Your task to perform on an android device: install app "eBay: The shopping marketplace" Image 0: 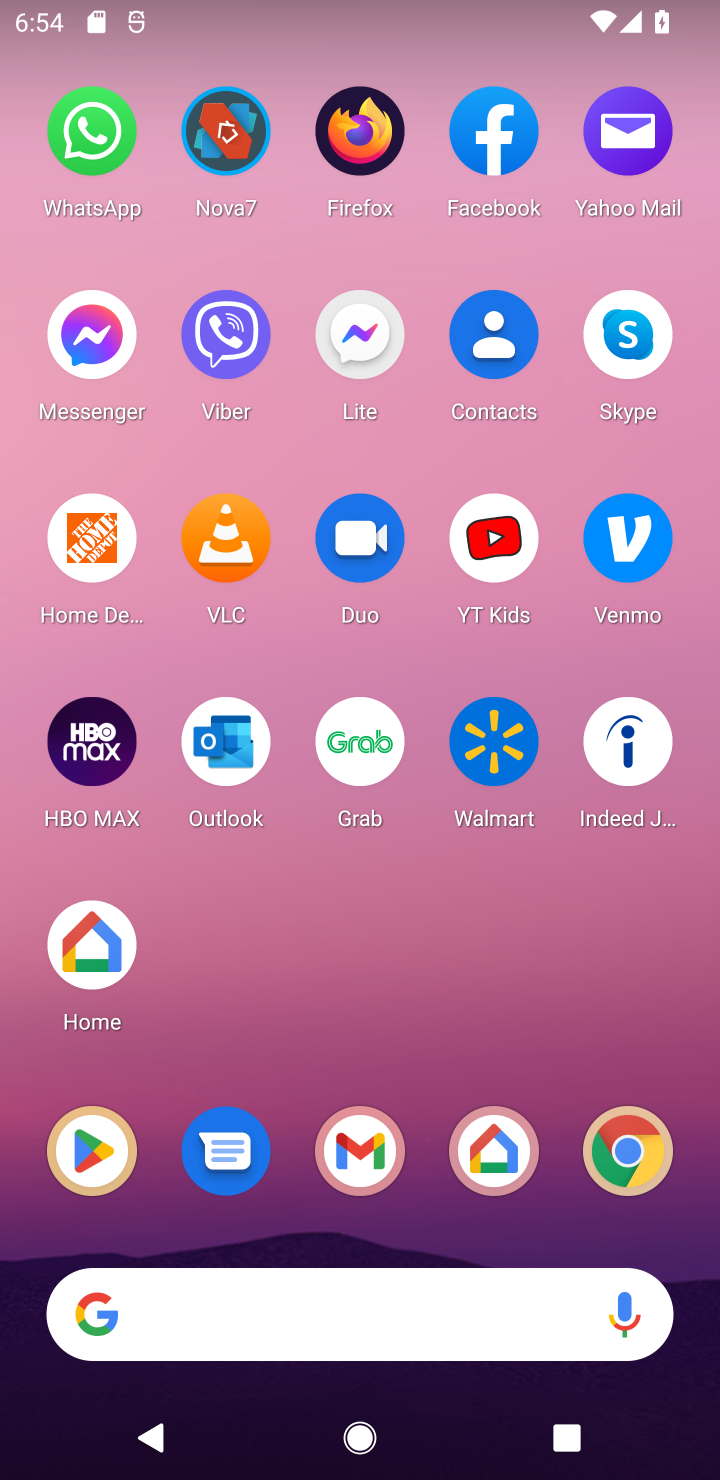
Step 0: click (88, 1149)
Your task to perform on an android device: install app "eBay: The shopping marketplace" Image 1: 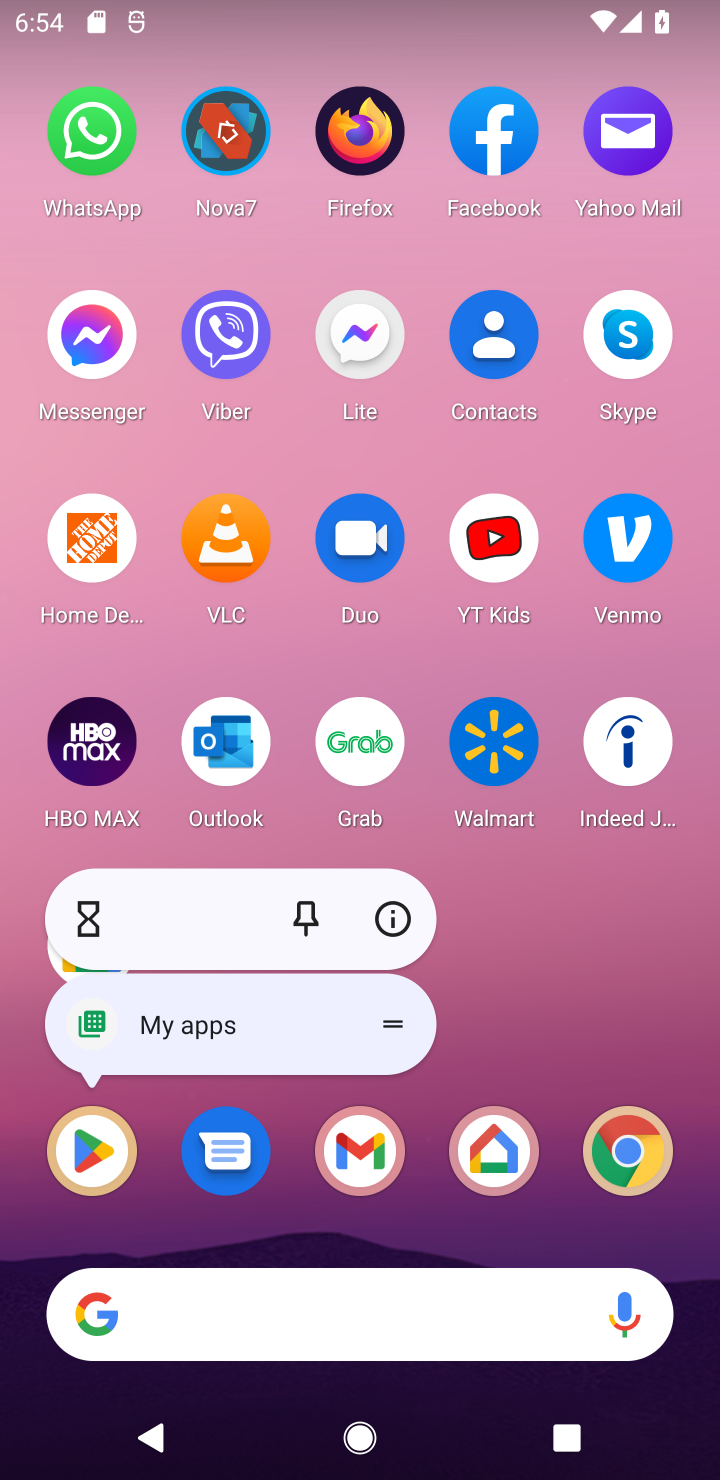
Step 1: click (93, 1160)
Your task to perform on an android device: install app "eBay: The shopping marketplace" Image 2: 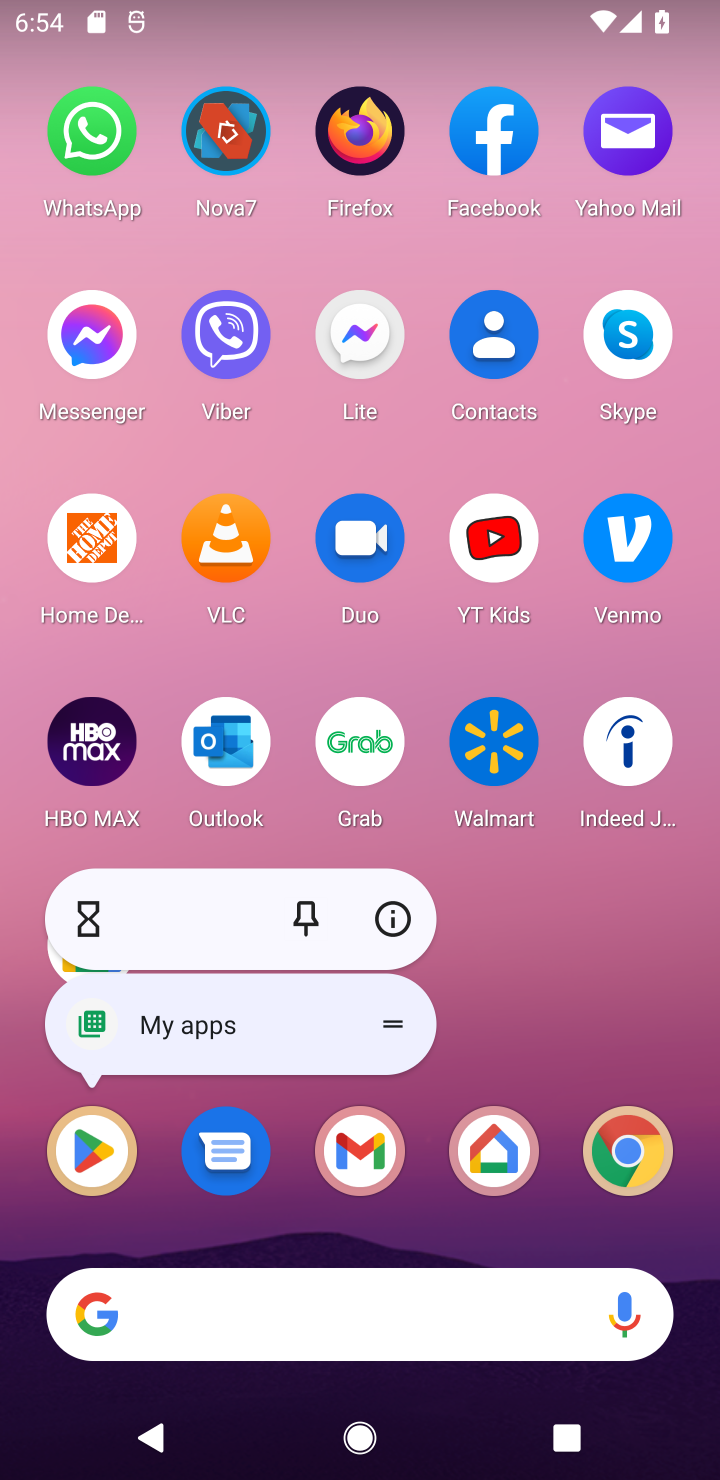
Step 2: click (93, 1160)
Your task to perform on an android device: install app "eBay: The shopping marketplace" Image 3: 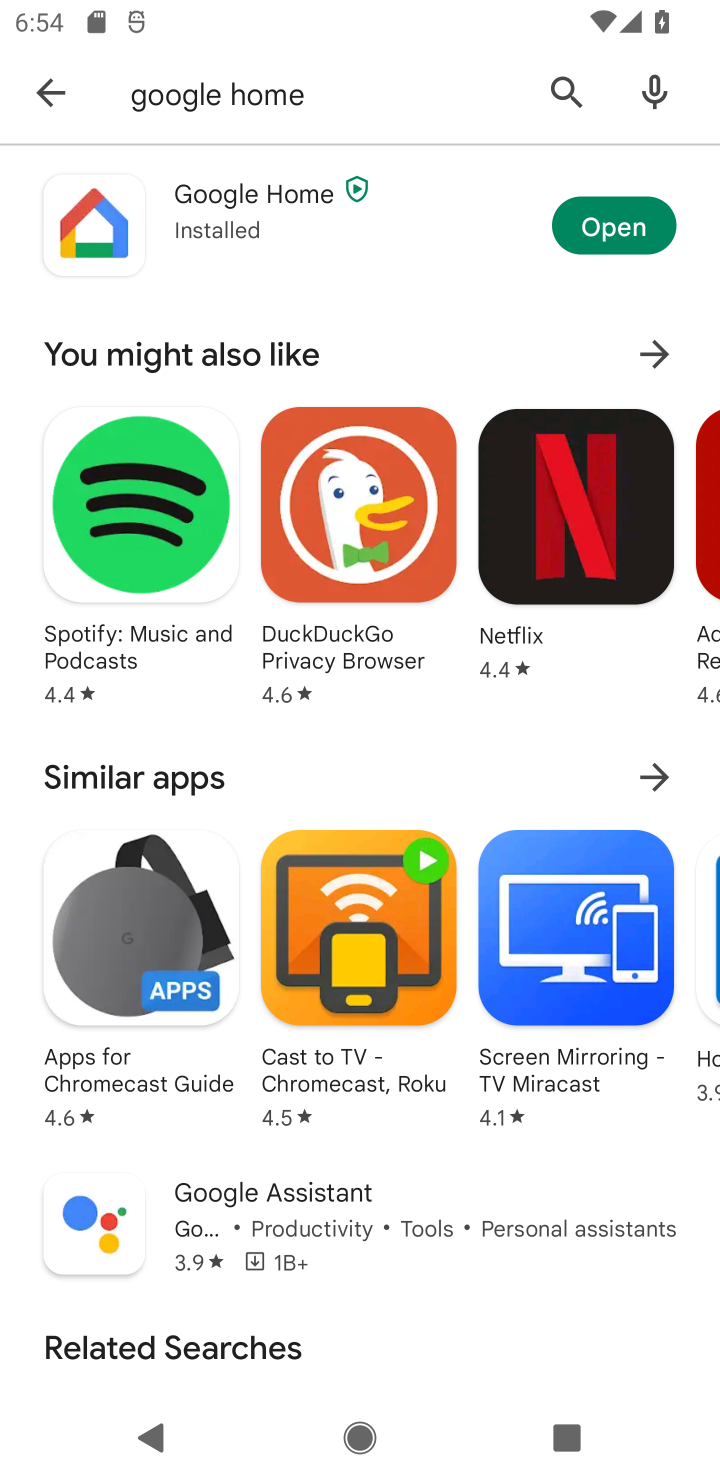
Step 3: click (566, 80)
Your task to perform on an android device: install app "eBay: The shopping marketplace" Image 4: 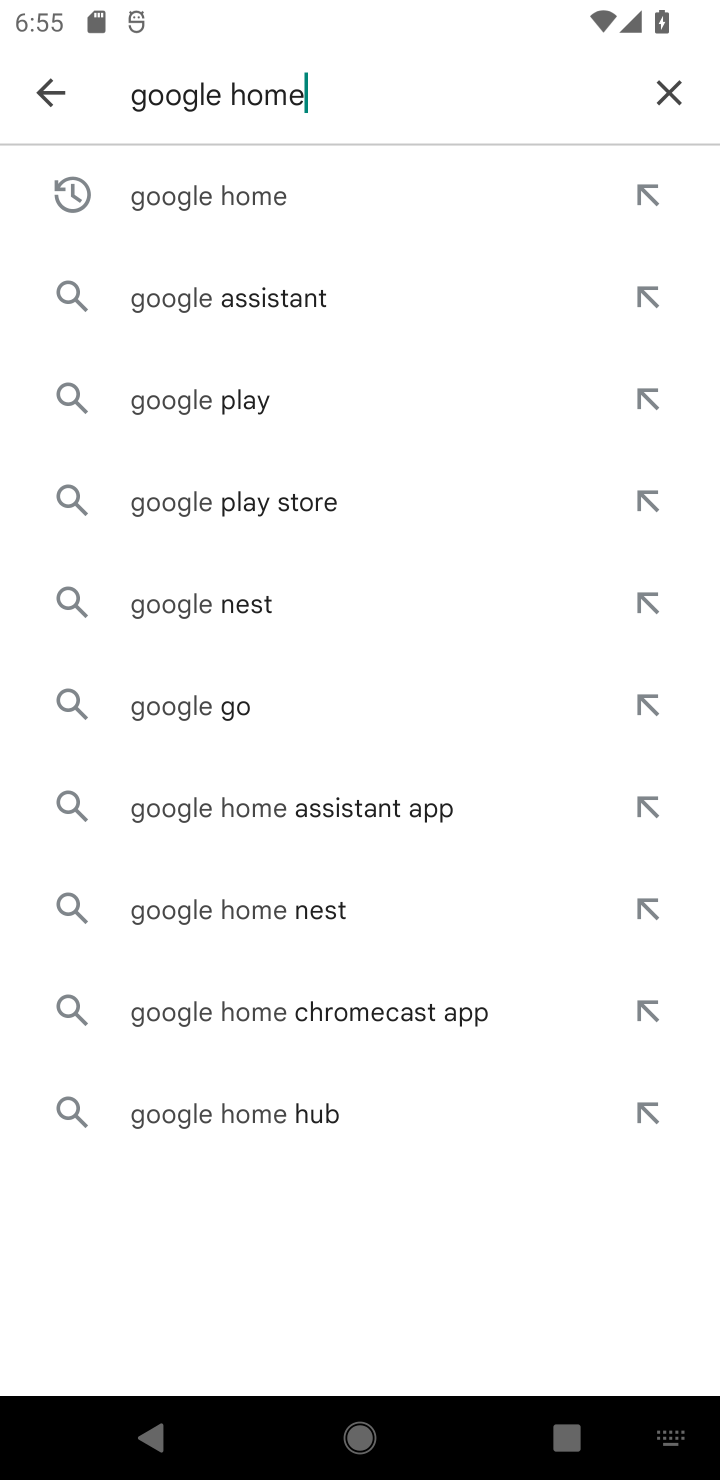
Step 4: click (674, 93)
Your task to perform on an android device: install app "eBay: The shopping marketplace" Image 5: 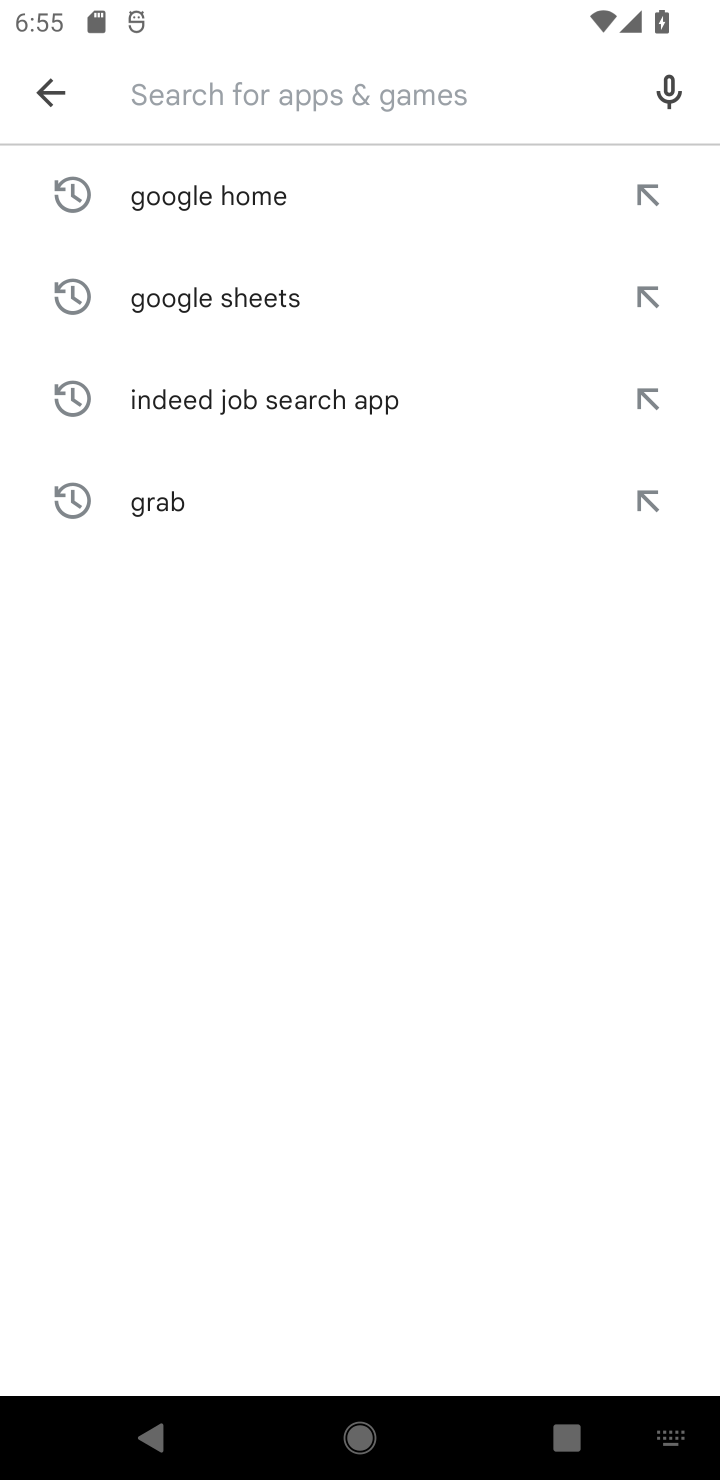
Step 5: type "eBay: The shopping marketplace"
Your task to perform on an android device: install app "eBay: The shopping marketplace" Image 6: 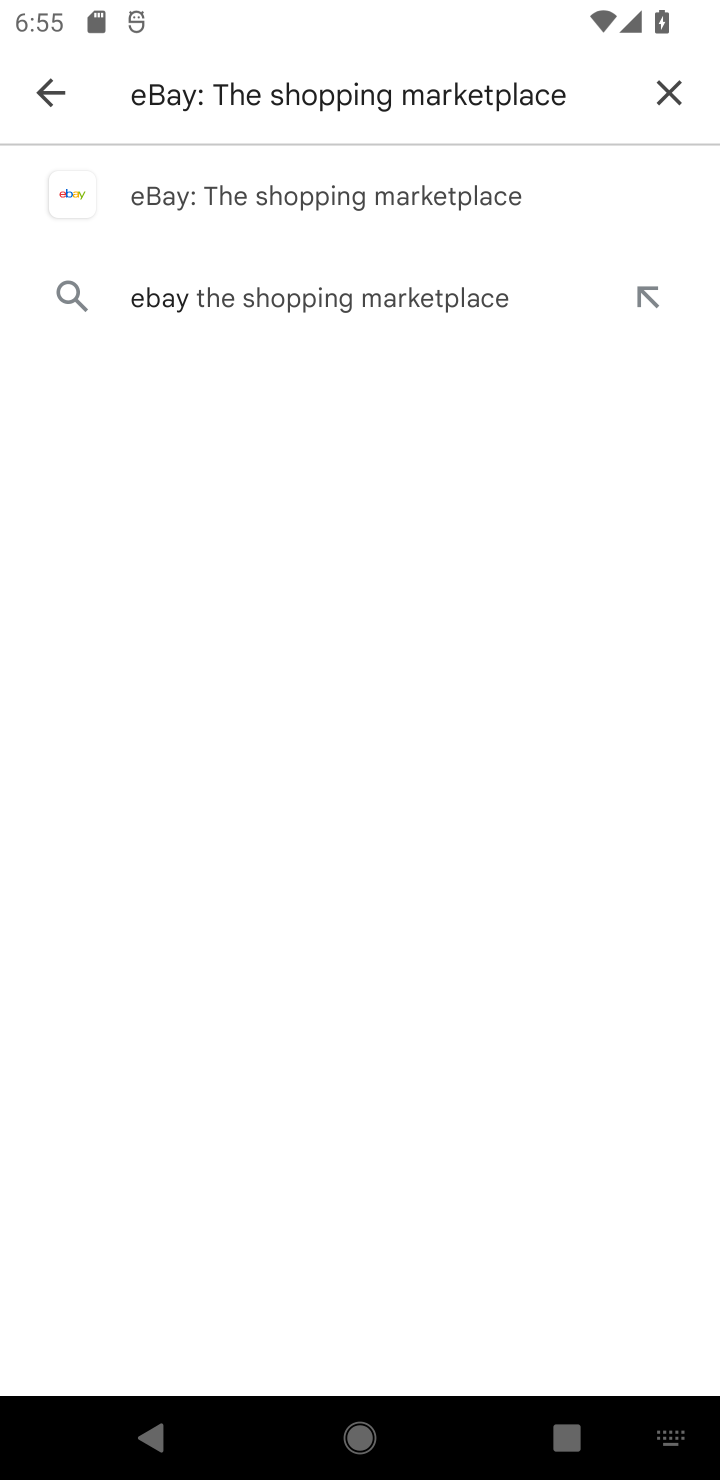
Step 6: click (256, 212)
Your task to perform on an android device: install app "eBay: The shopping marketplace" Image 7: 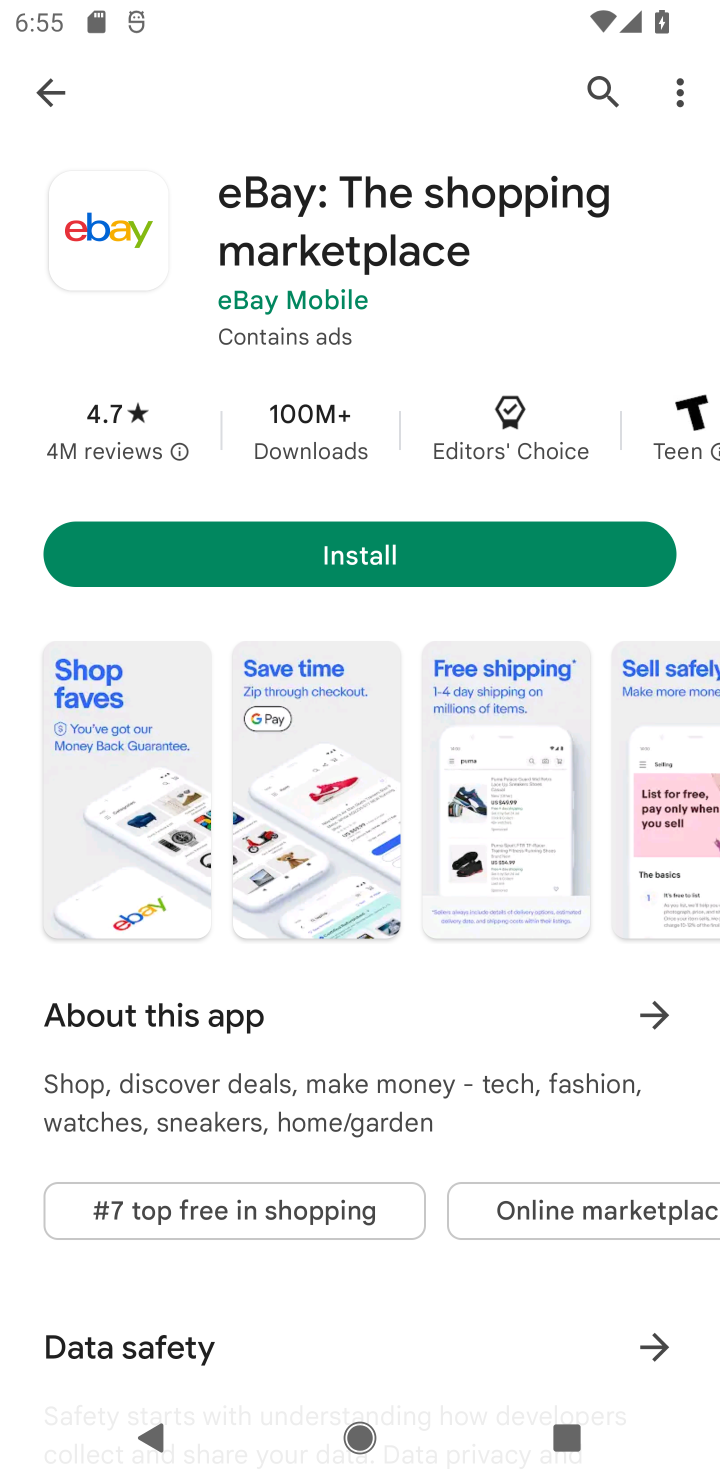
Step 7: click (290, 573)
Your task to perform on an android device: install app "eBay: The shopping marketplace" Image 8: 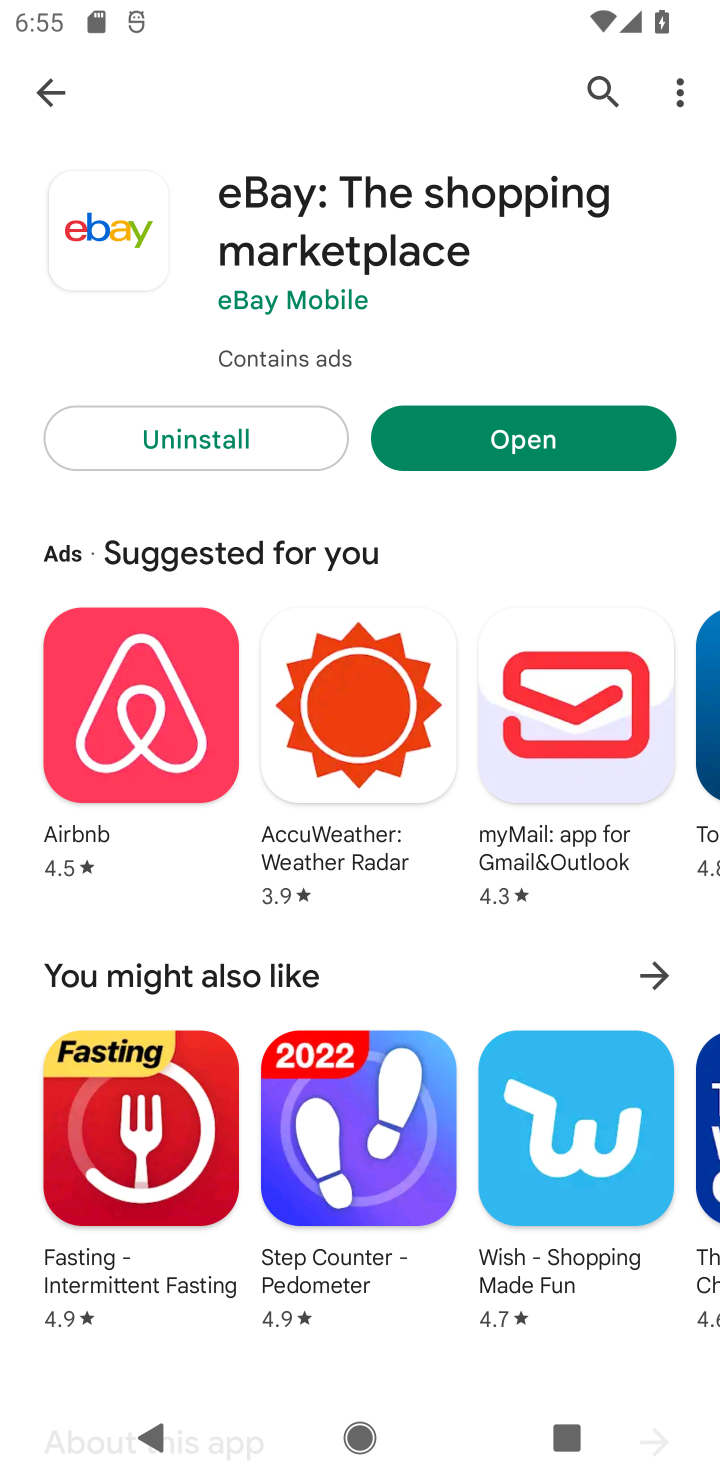
Step 8: task complete